Your task to perform on an android device: turn on the 12-hour format for clock Image 0: 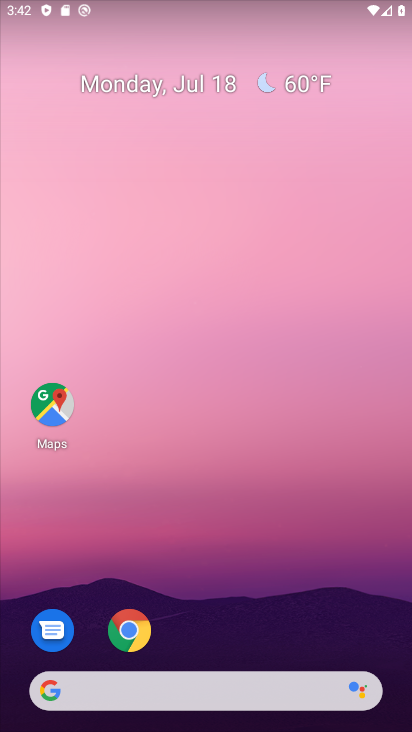
Step 0: drag from (227, 570) to (240, 0)
Your task to perform on an android device: turn on the 12-hour format for clock Image 1: 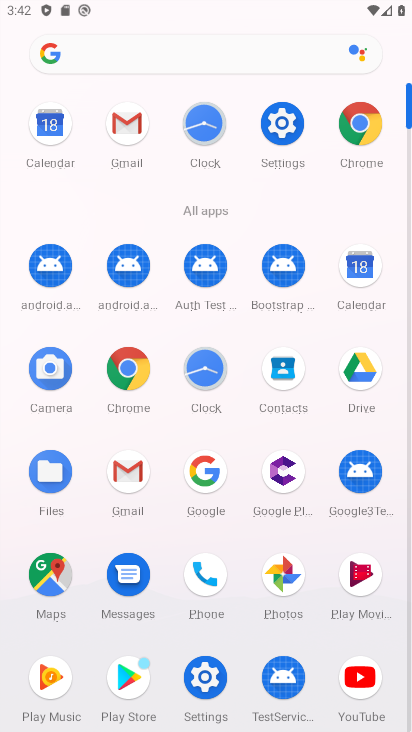
Step 1: click (215, 135)
Your task to perform on an android device: turn on the 12-hour format for clock Image 2: 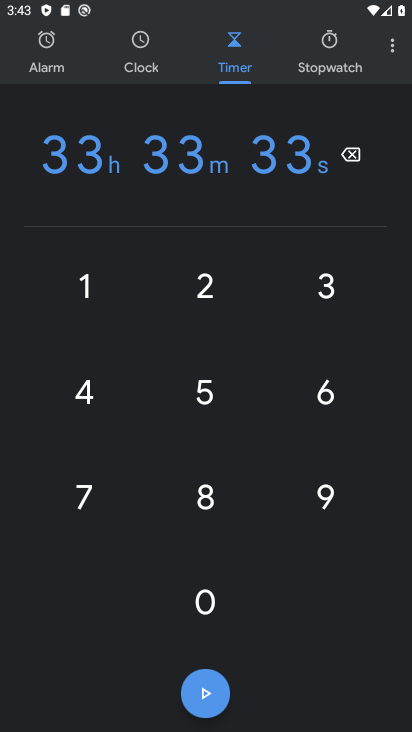
Step 2: click (397, 54)
Your task to perform on an android device: turn on the 12-hour format for clock Image 3: 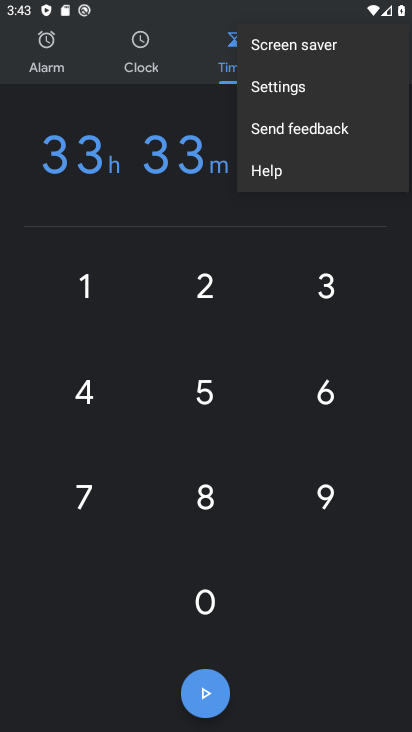
Step 3: click (310, 91)
Your task to perform on an android device: turn on the 12-hour format for clock Image 4: 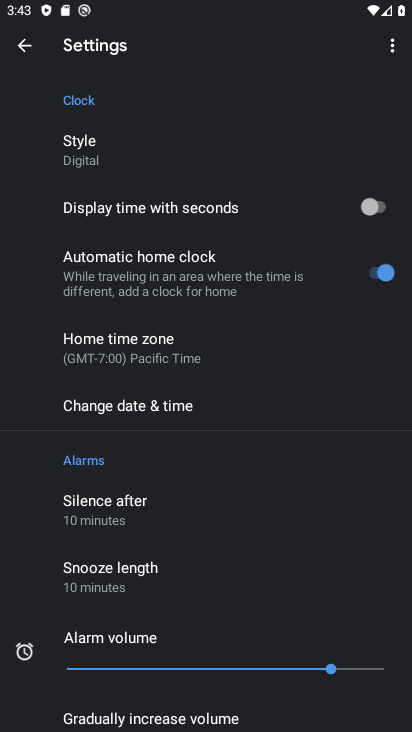
Step 4: drag from (241, 483) to (224, 398)
Your task to perform on an android device: turn on the 12-hour format for clock Image 5: 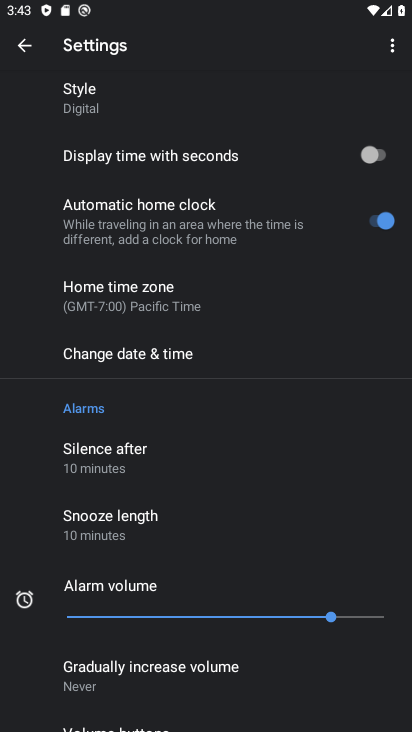
Step 5: click (183, 360)
Your task to perform on an android device: turn on the 12-hour format for clock Image 6: 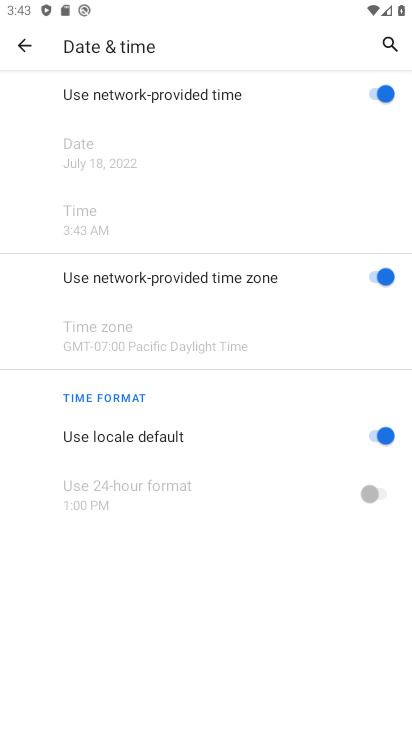
Step 6: task complete